Your task to perform on an android device: find snoozed emails in the gmail app Image 0: 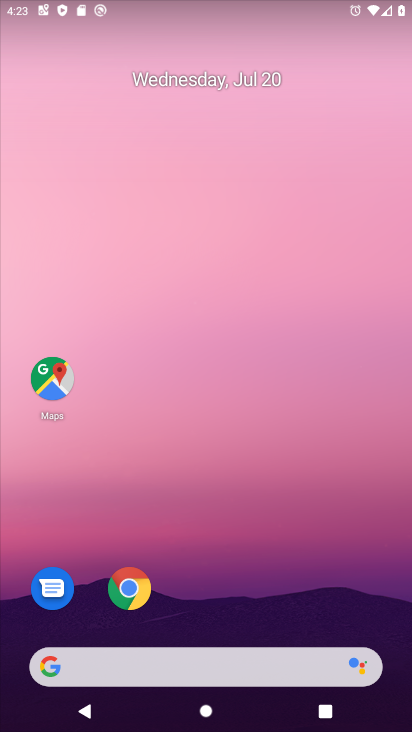
Step 0: drag from (289, 605) to (261, 99)
Your task to perform on an android device: find snoozed emails in the gmail app Image 1: 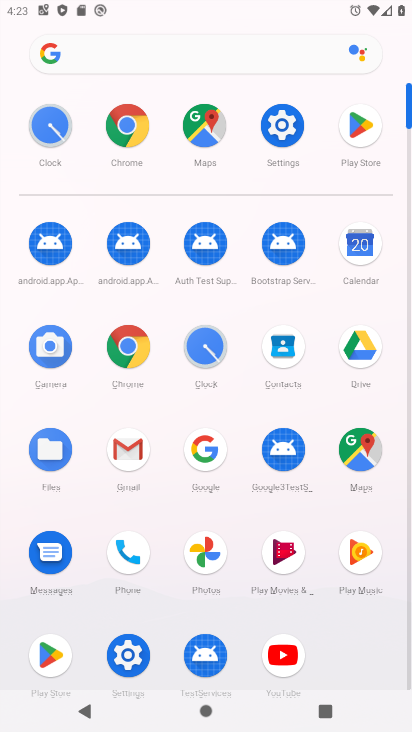
Step 1: click (125, 443)
Your task to perform on an android device: find snoozed emails in the gmail app Image 2: 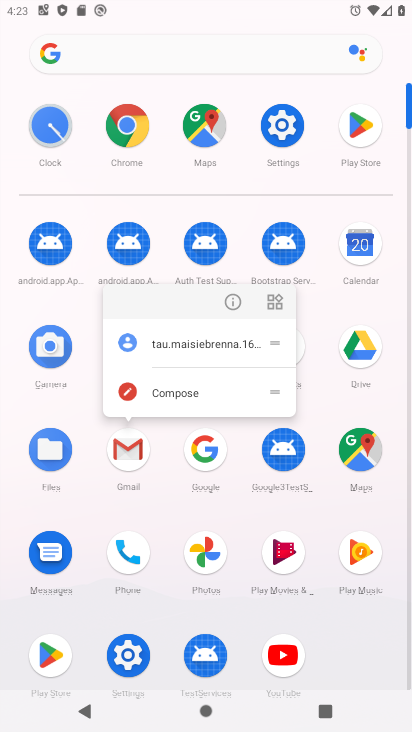
Step 2: click (82, 304)
Your task to perform on an android device: find snoozed emails in the gmail app Image 3: 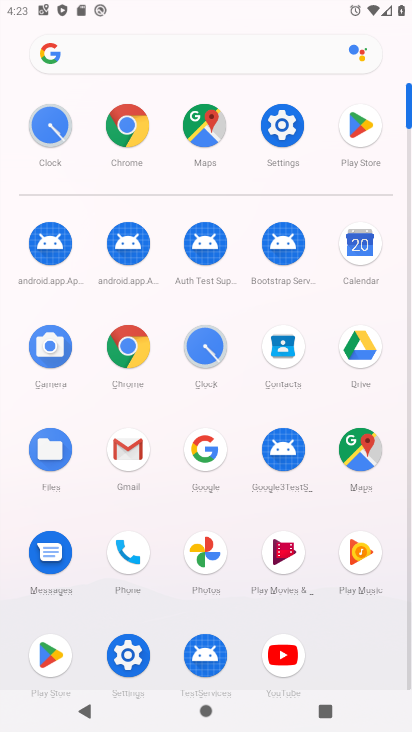
Step 3: click (131, 456)
Your task to perform on an android device: find snoozed emails in the gmail app Image 4: 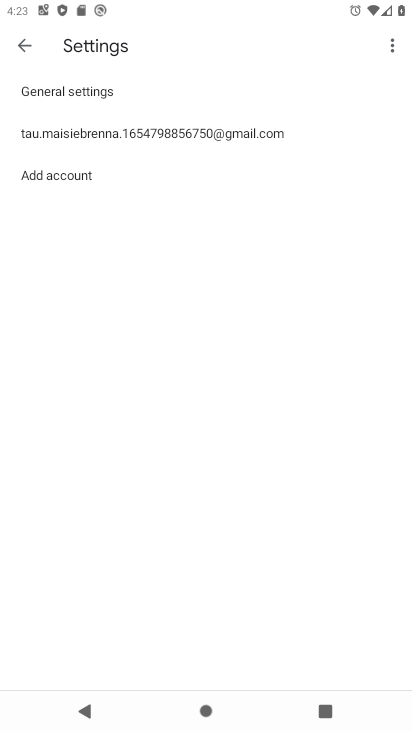
Step 4: click (26, 44)
Your task to perform on an android device: find snoozed emails in the gmail app Image 5: 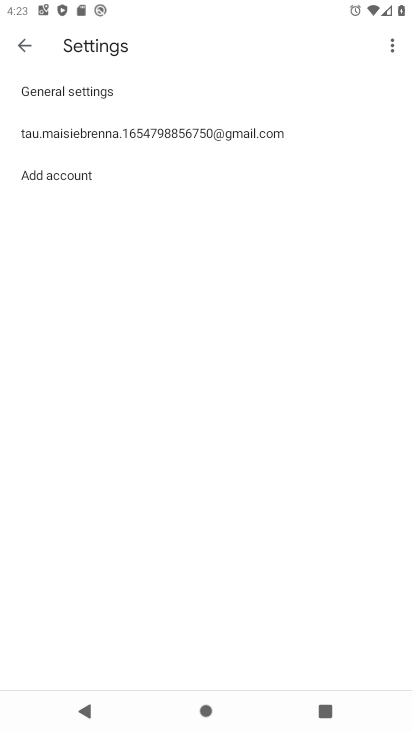
Step 5: click (25, 44)
Your task to perform on an android device: find snoozed emails in the gmail app Image 6: 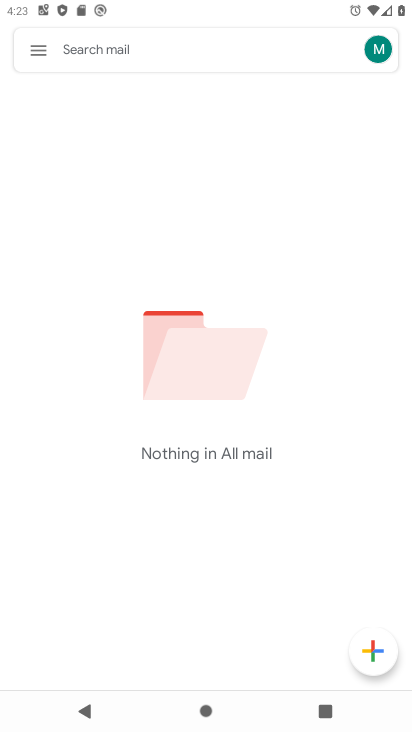
Step 6: click (28, 44)
Your task to perform on an android device: find snoozed emails in the gmail app Image 7: 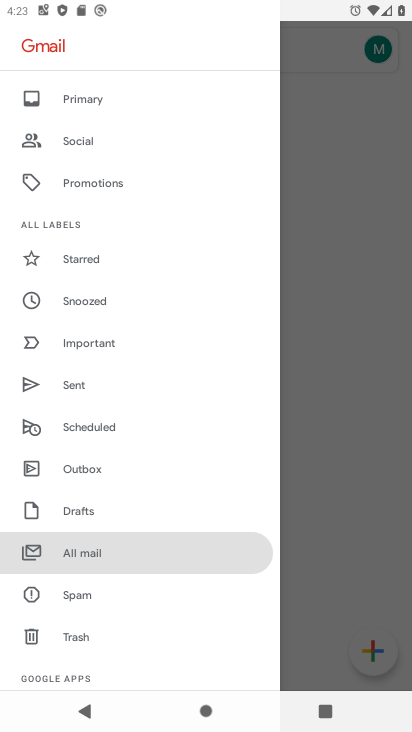
Step 7: click (92, 296)
Your task to perform on an android device: find snoozed emails in the gmail app Image 8: 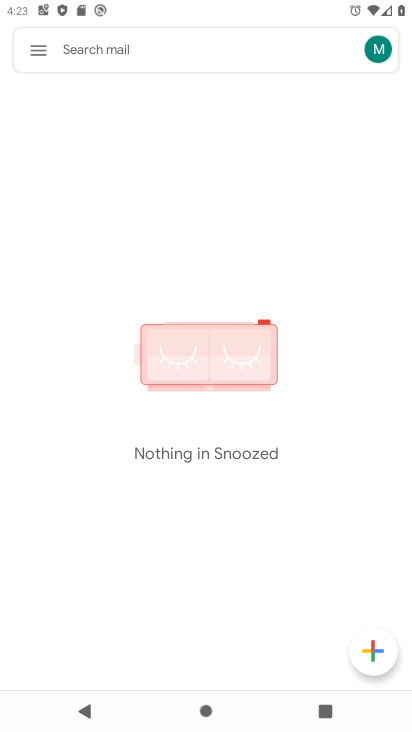
Step 8: task complete